Your task to perform on an android device: Search for dell xps on costco, select the first entry, add it to the cart, then select checkout. Image 0: 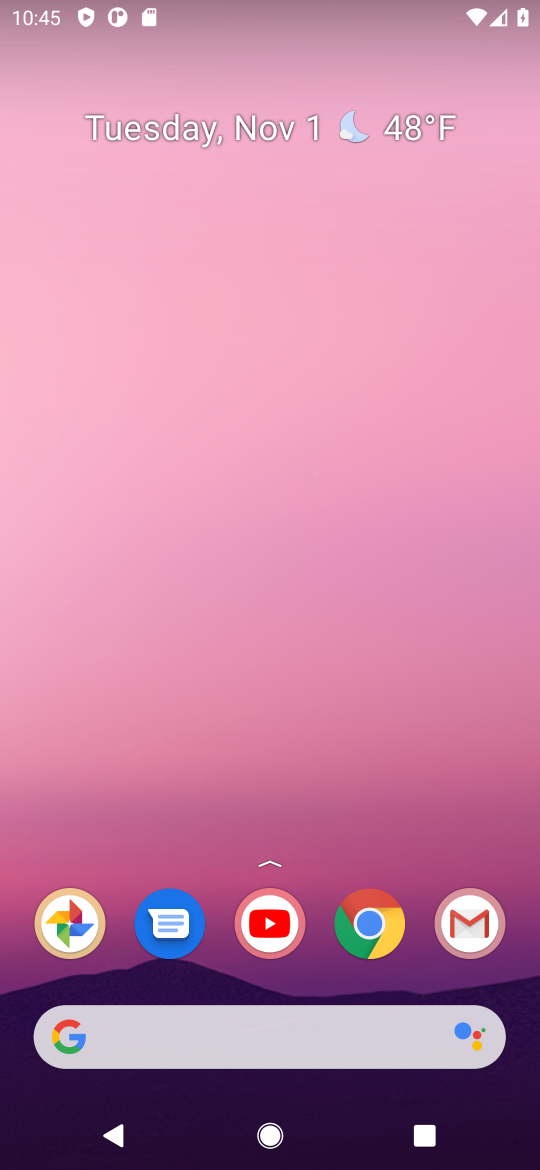
Step 0: click (361, 949)
Your task to perform on an android device: Search for dell xps on costco, select the first entry, add it to the cart, then select checkout. Image 1: 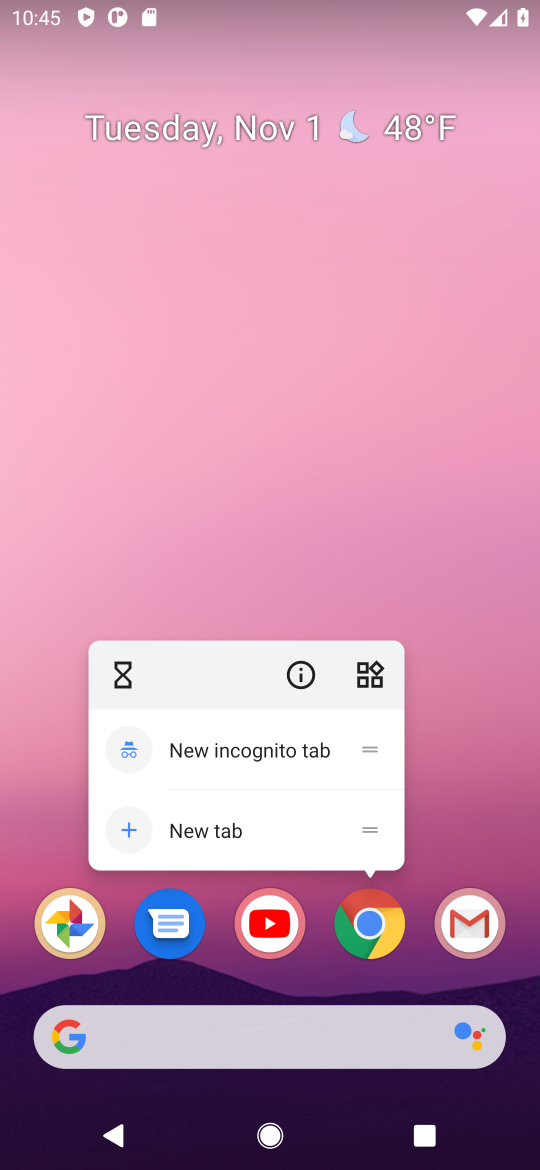
Step 1: click (361, 949)
Your task to perform on an android device: Search for dell xps on costco, select the first entry, add it to the cart, then select checkout. Image 2: 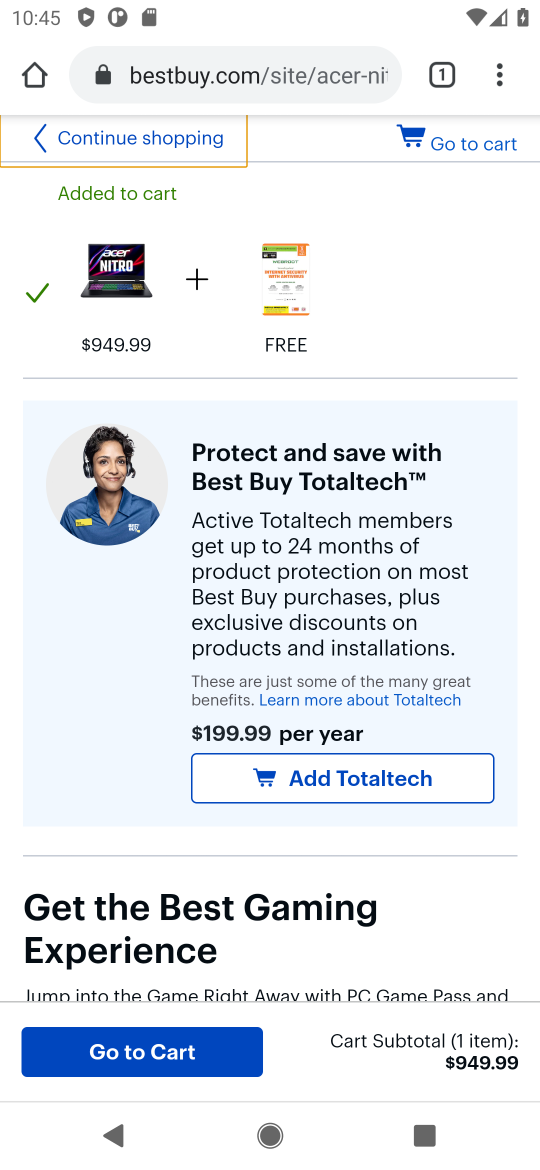
Step 2: click (265, 78)
Your task to perform on an android device: Search for dell xps on costco, select the first entry, add it to the cart, then select checkout. Image 3: 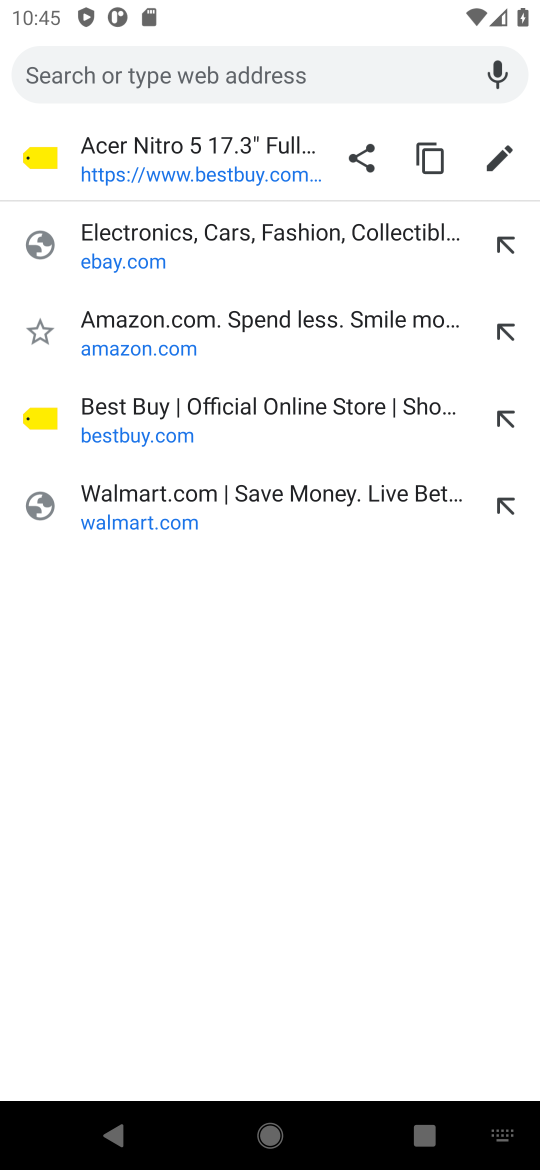
Step 3: type "costco"
Your task to perform on an android device: Search for dell xps on costco, select the first entry, add it to the cart, then select checkout. Image 4: 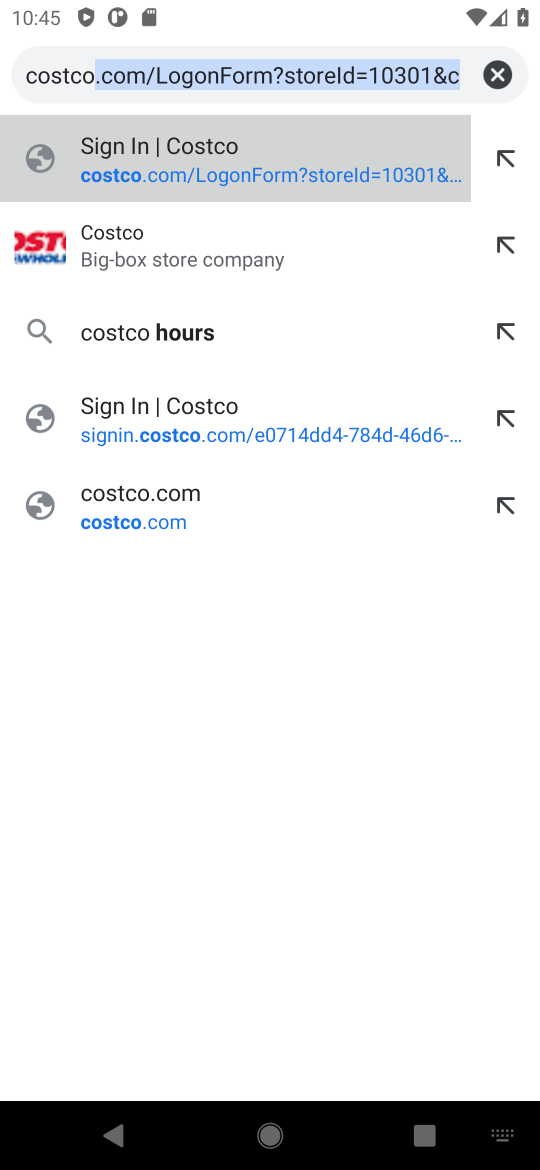
Step 4: click (150, 495)
Your task to perform on an android device: Search for dell xps on costco, select the first entry, add it to the cart, then select checkout. Image 5: 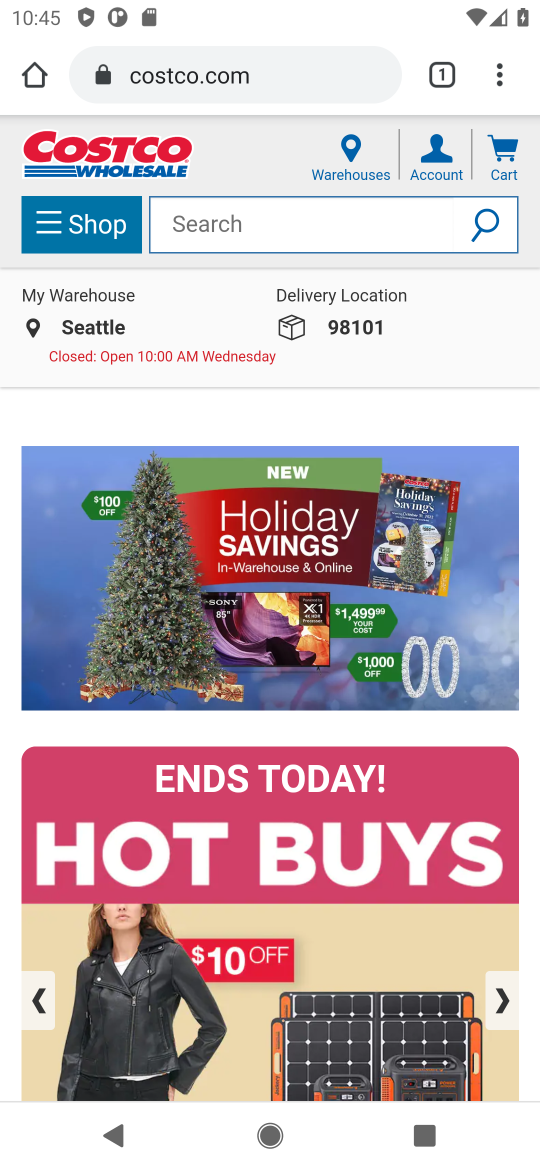
Step 5: click (307, 229)
Your task to perform on an android device: Search for dell xps on costco, select the first entry, add it to the cart, then select checkout. Image 6: 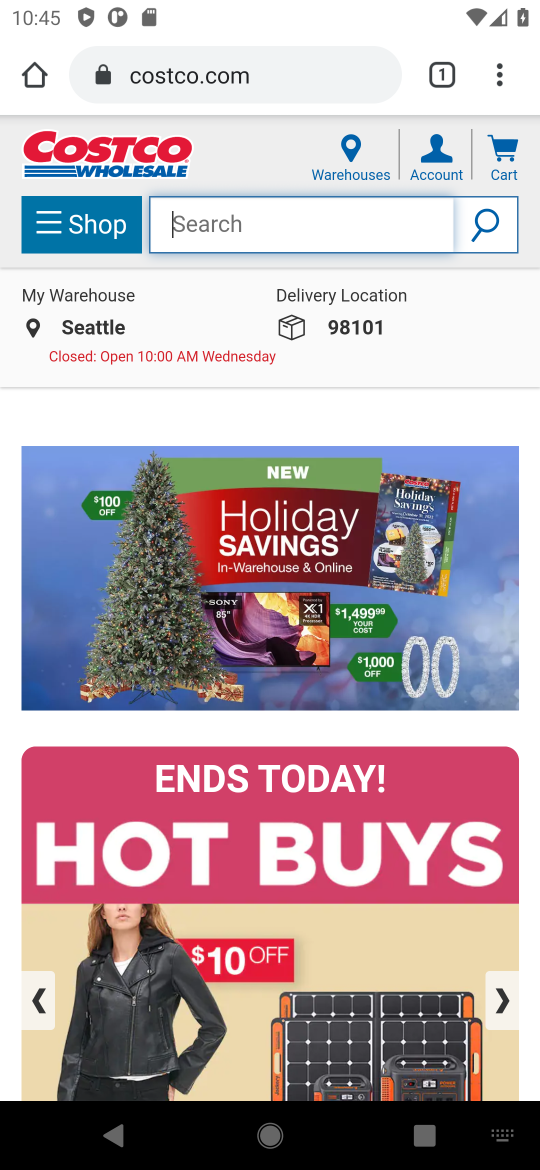
Step 6: type "dell xps"
Your task to perform on an android device: Search for dell xps on costco, select the first entry, add it to the cart, then select checkout. Image 7: 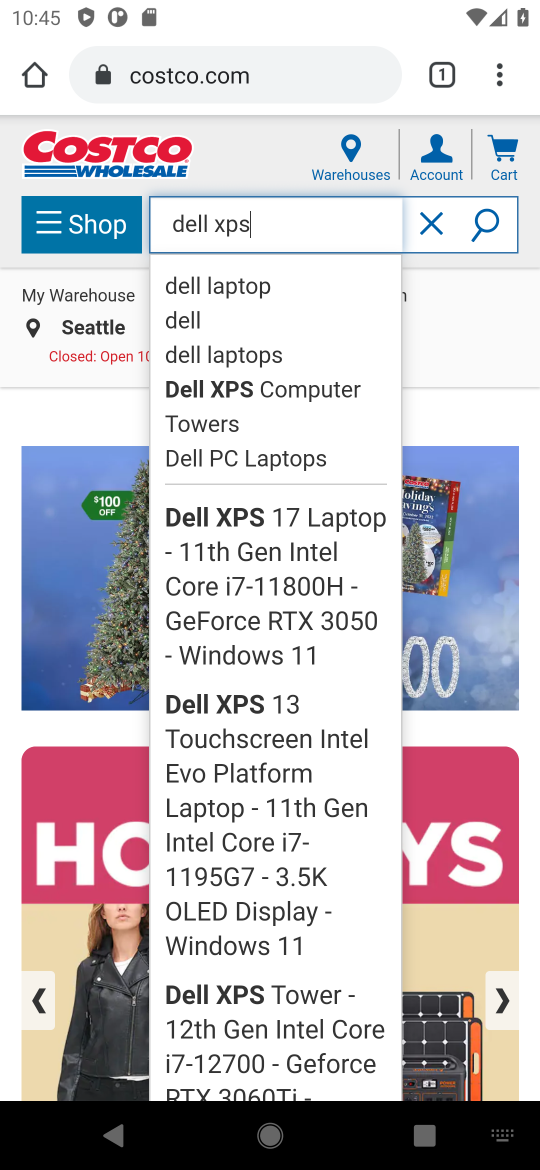
Step 7: press enter
Your task to perform on an android device: Search for dell xps on costco, select the first entry, add it to the cart, then select checkout. Image 8: 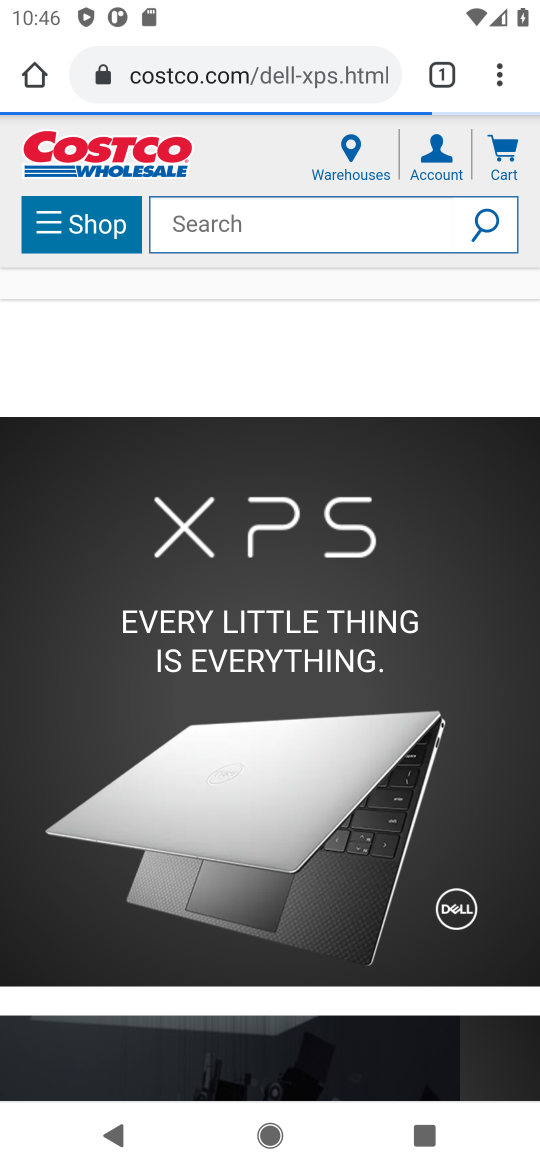
Step 8: task complete